Your task to perform on an android device: Open Android settings Image 0: 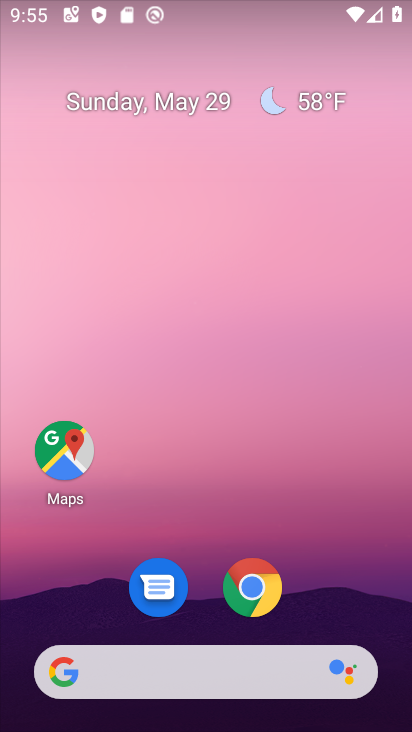
Step 0: drag from (322, 603) to (22, 2)
Your task to perform on an android device: Open Android settings Image 1: 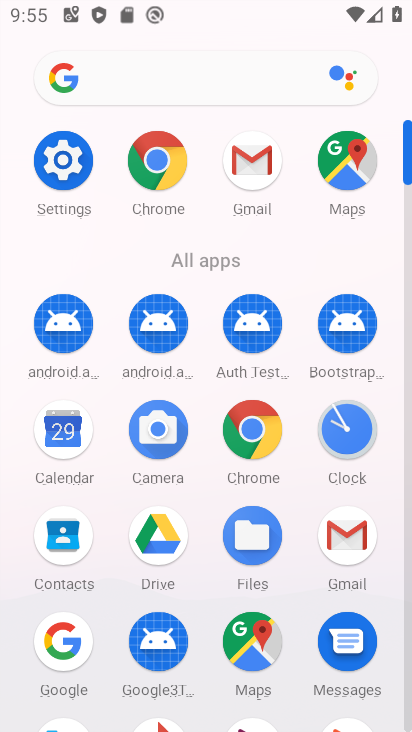
Step 1: click (67, 172)
Your task to perform on an android device: Open Android settings Image 2: 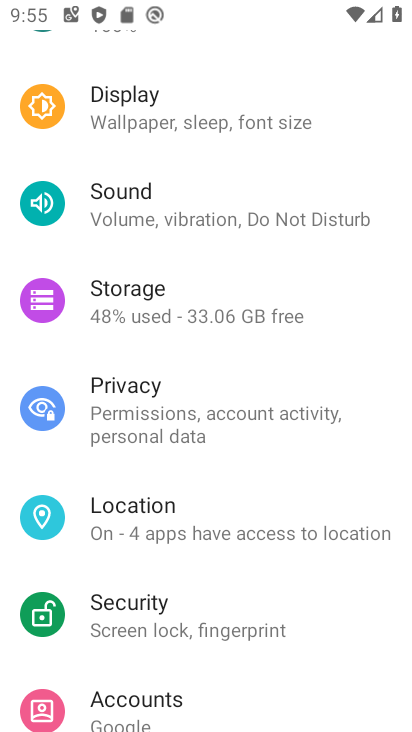
Step 2: task complete